Your task to perform on an android device: change the clock style Image 0: 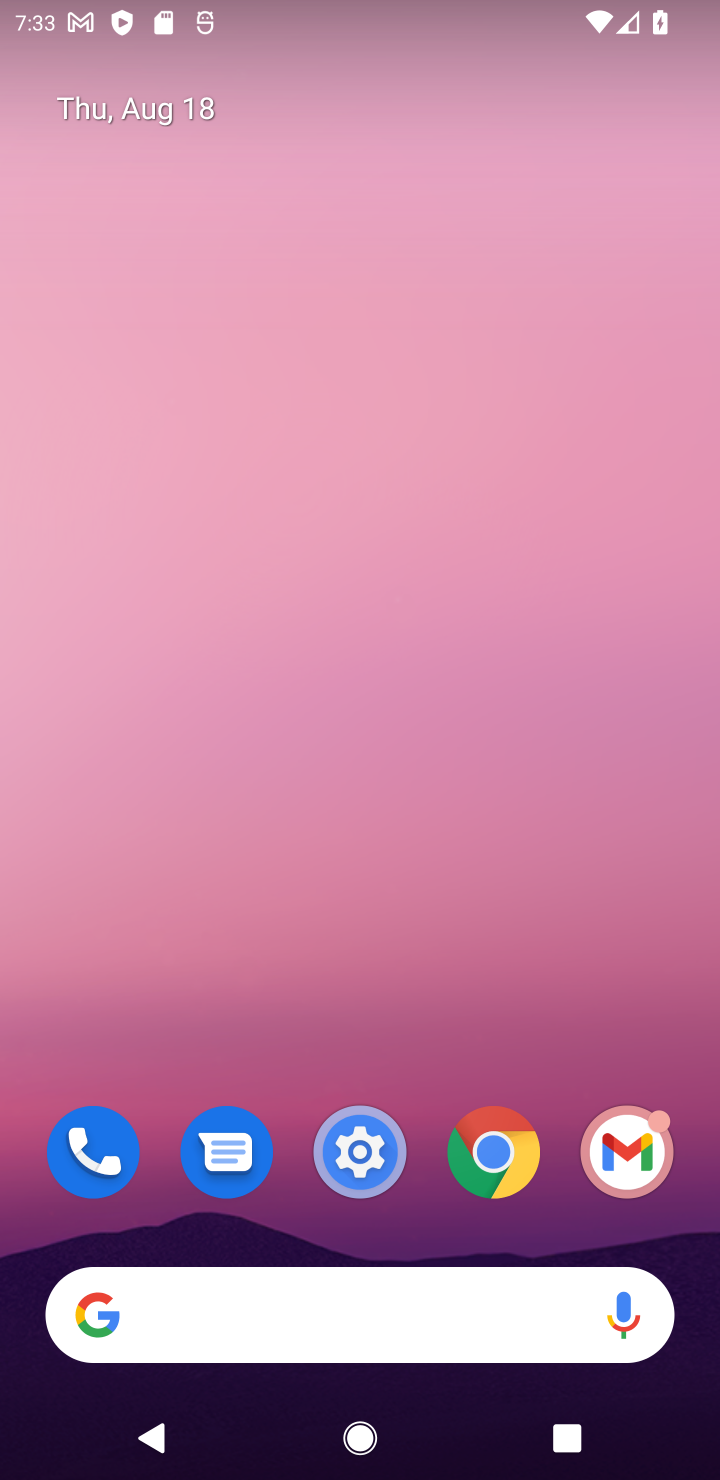
Step 0: press home button
Your task to perform on an android device: change the clock style Image 1: 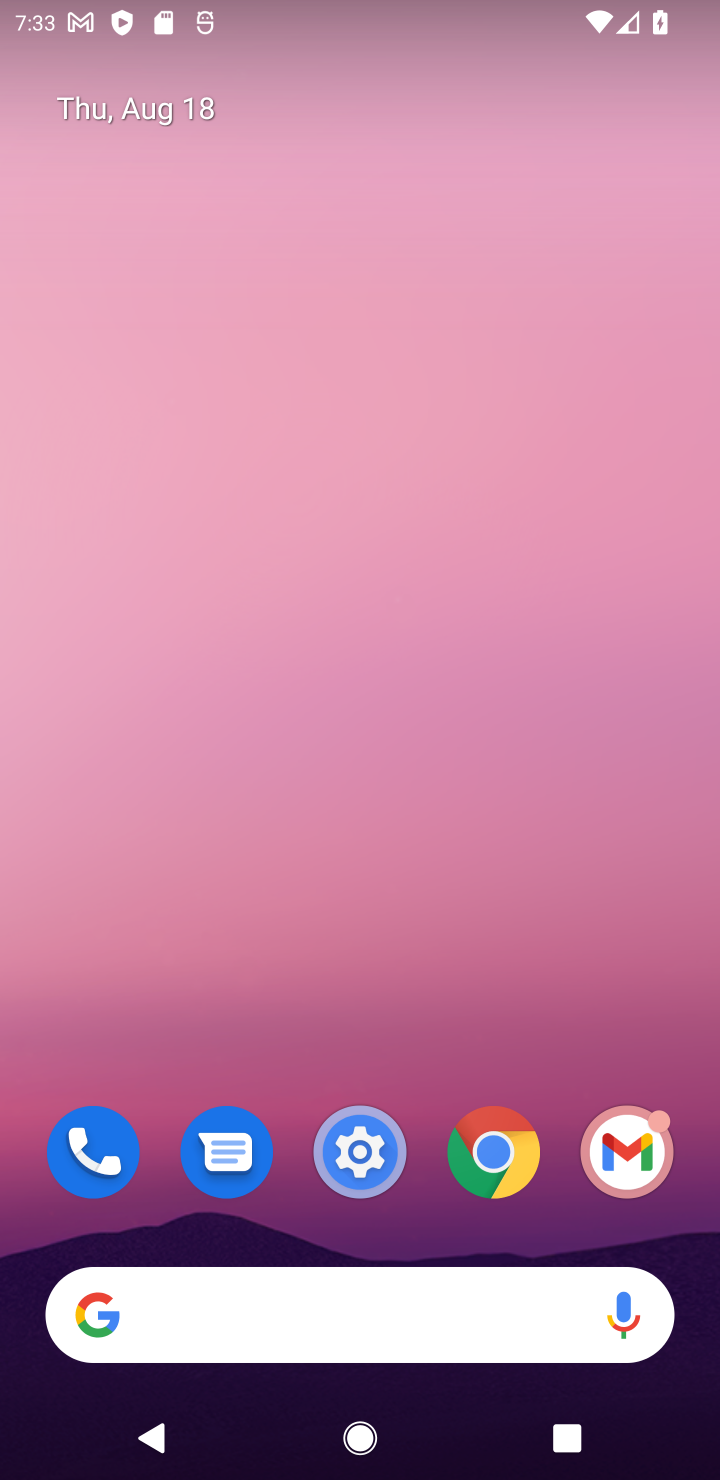
Step 1: drag from (413, 1172) to (435, 150)
Your task to perform on an android device: change the clock style Image 2: 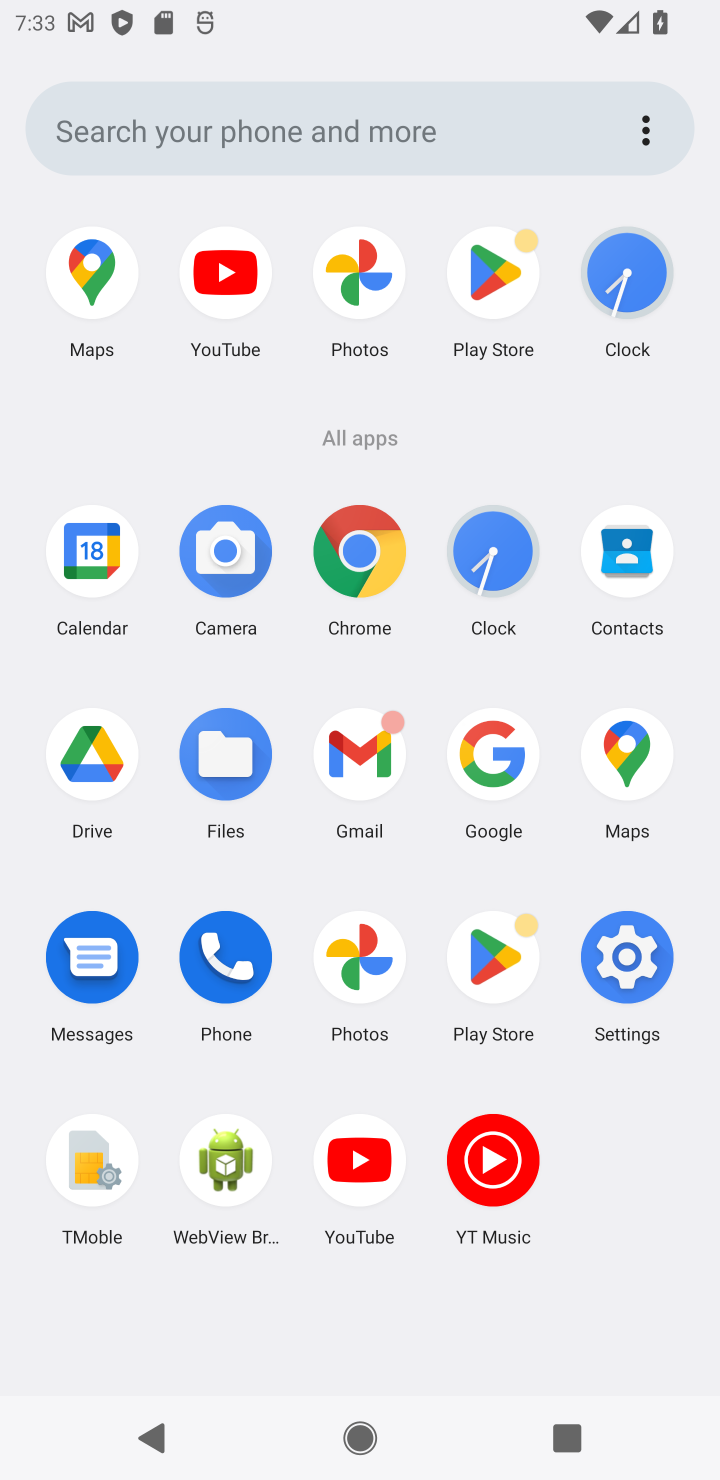
Step 2: click (639, 294)
Your task to perform on an android device: change the clock style Image 3: 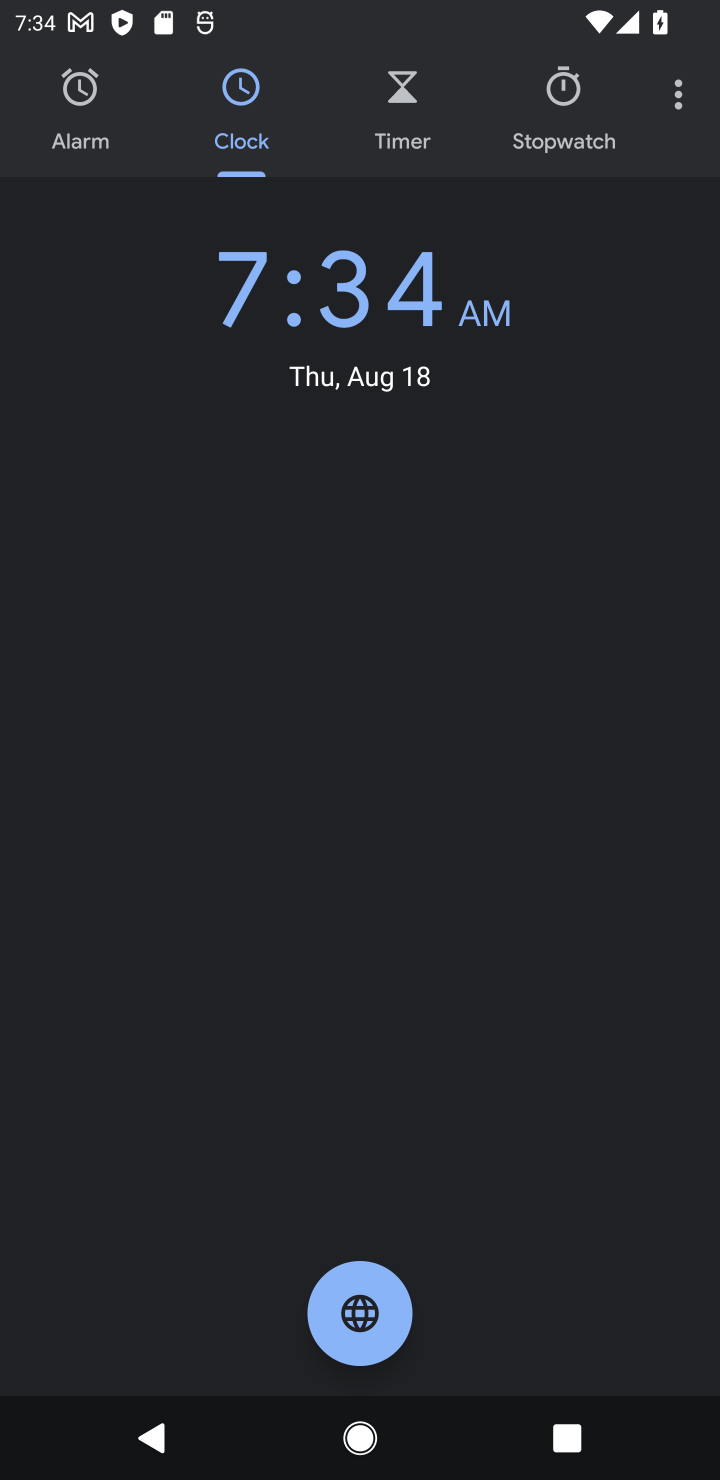
Step 3: click (678, 101)
Your task to perform on an android device: change the clock style Image 4: 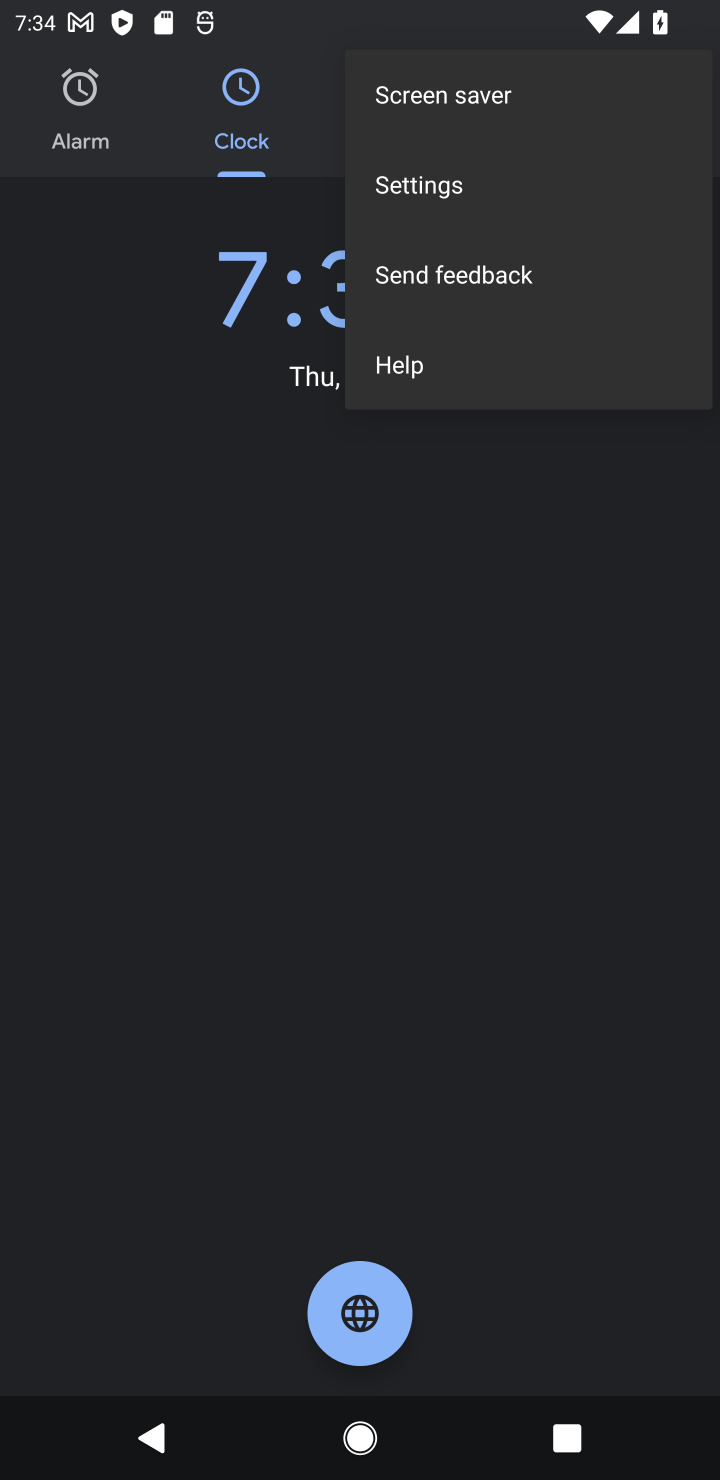
Step 4: click (398, 193)
Your task to perform on an android device: change the clock style Image 5: 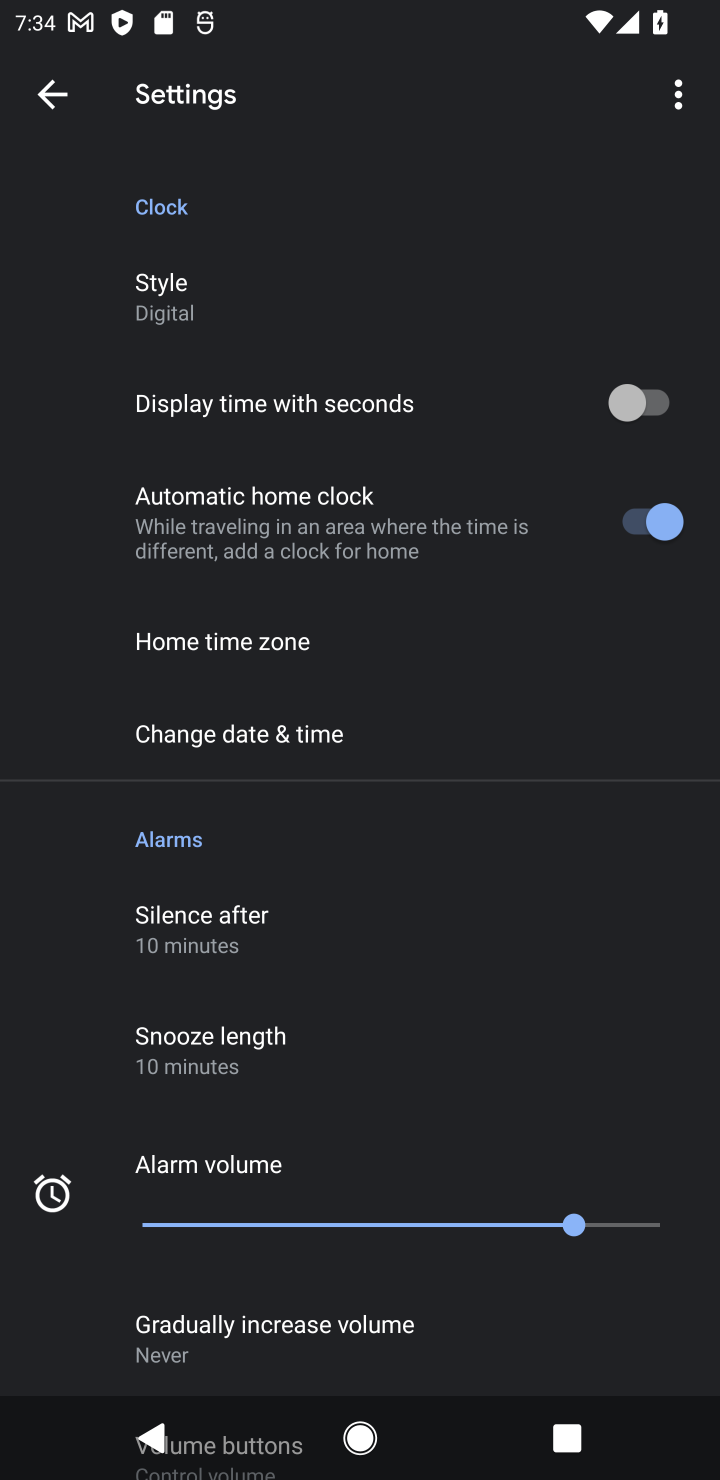
Step 5: click (163, 306)
Your task to perform on an android device: change the clock style Image 6: 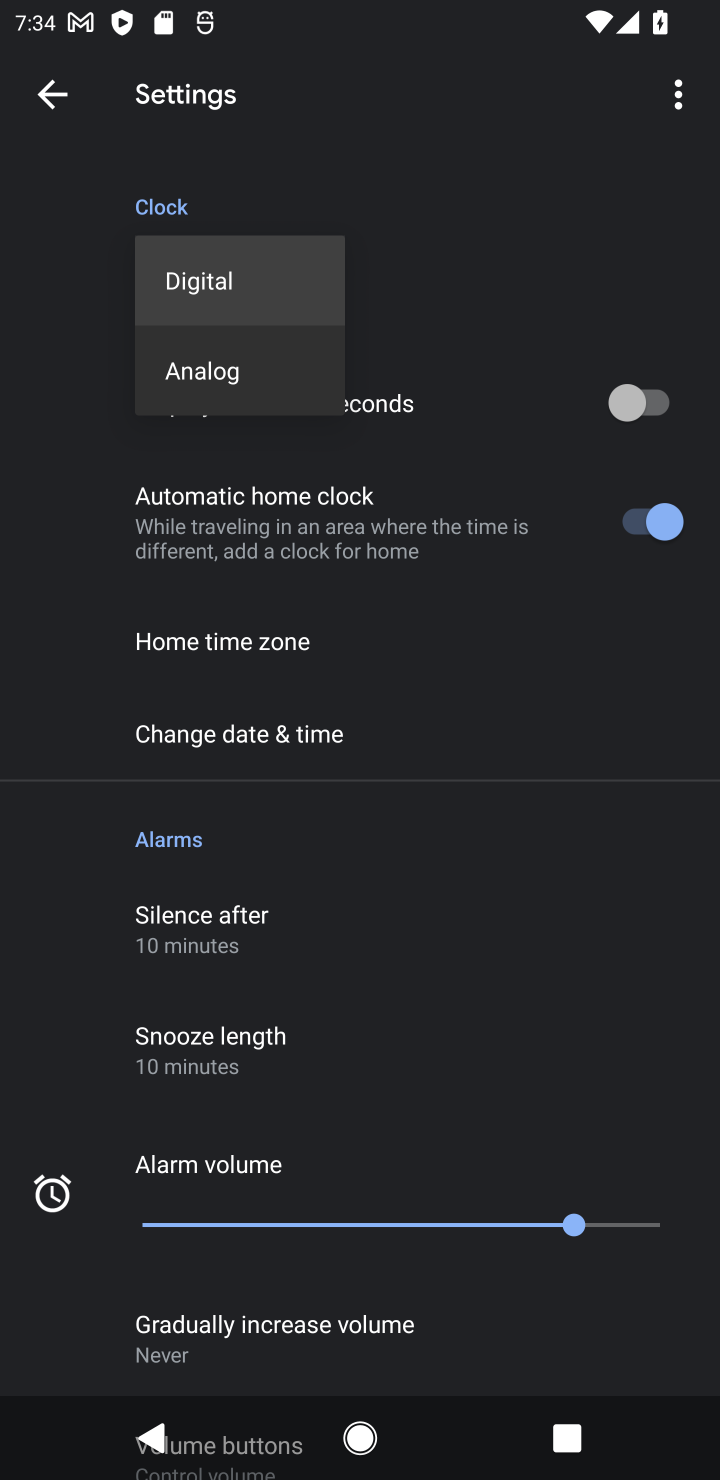
Step 6: click (182, 381)
Your task to perform on an android device: change the clock style Image 7: 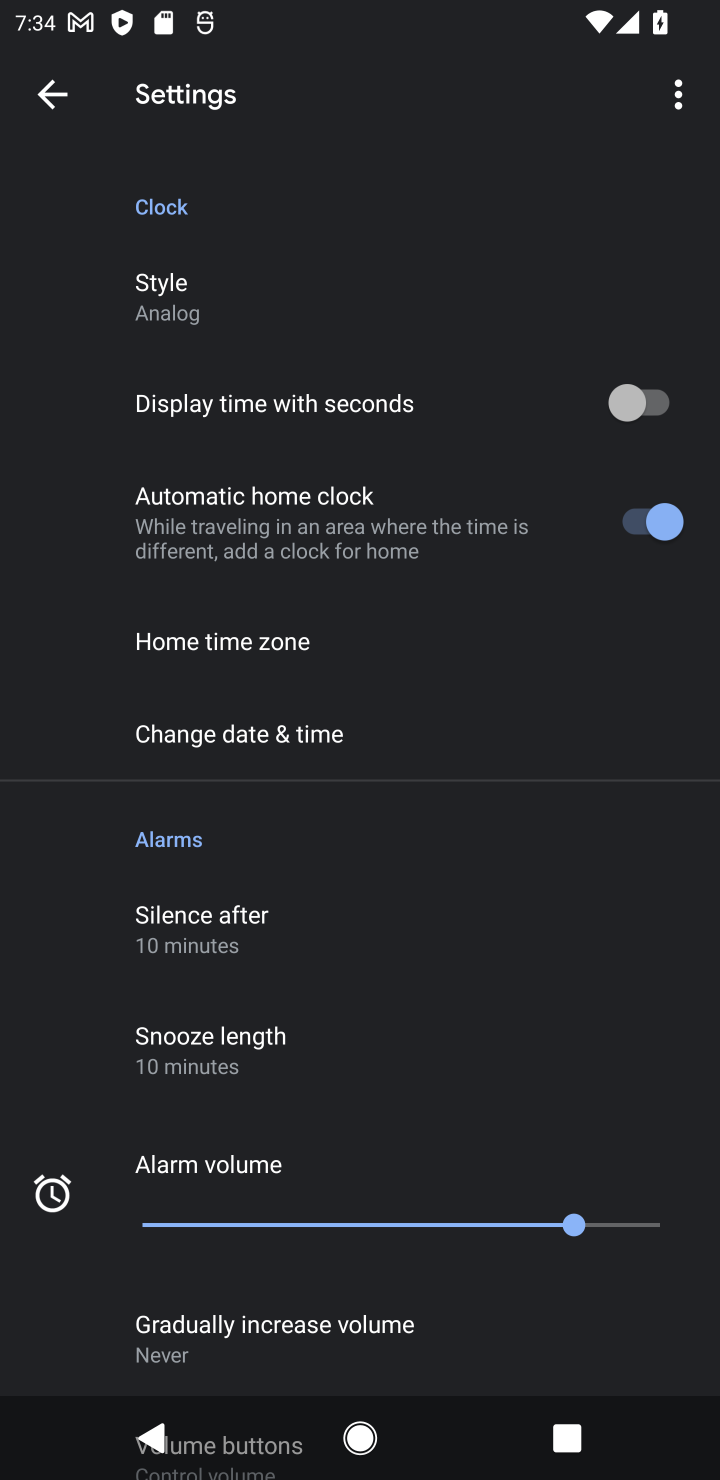
Step 7: task complete